Your task to perform on an android device: change the upload size in google photos Image 0: 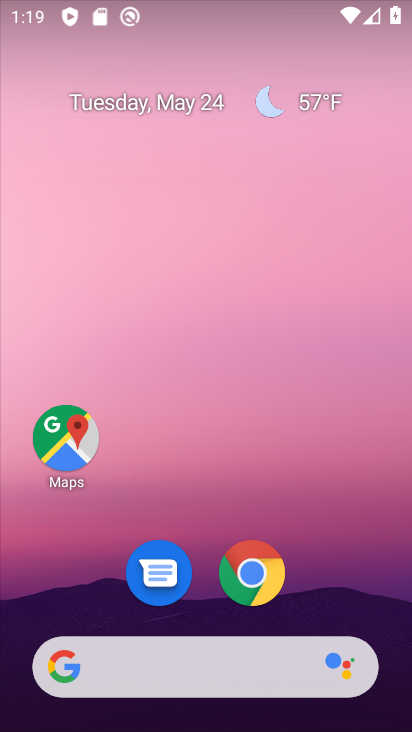
Step 0: drag from (376, 538) to (361, 140)
Your task to perform on an android device: change the upload size in google photos Image 1: 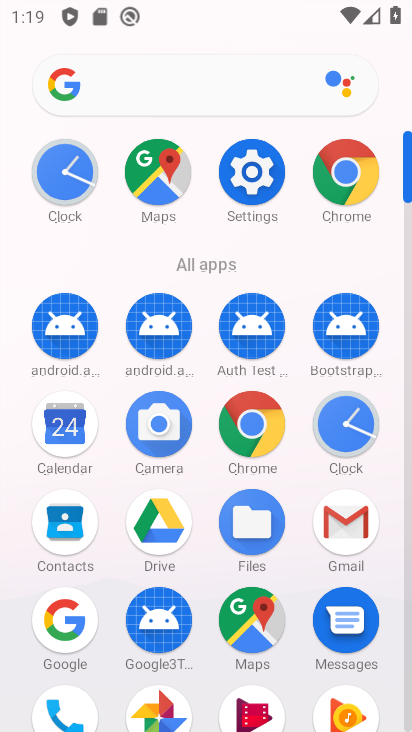
Step 1: click (154, 701)
Your task to perform on an android device: change the upload size in google photos Image 2: 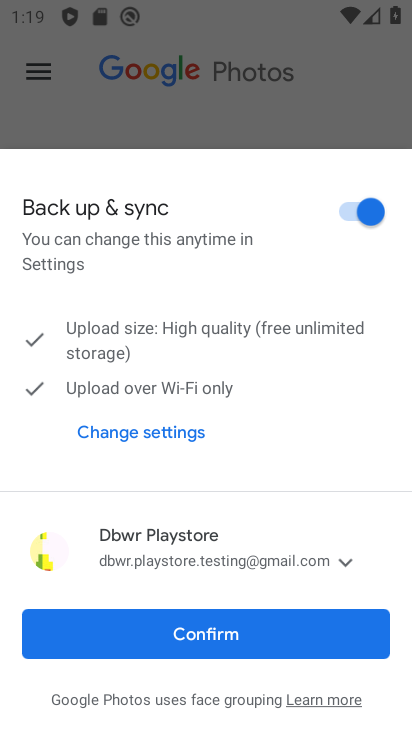
Step 2: click (201, 631)
Your task to perform on an android device: change the upload size in google photos Image 3: 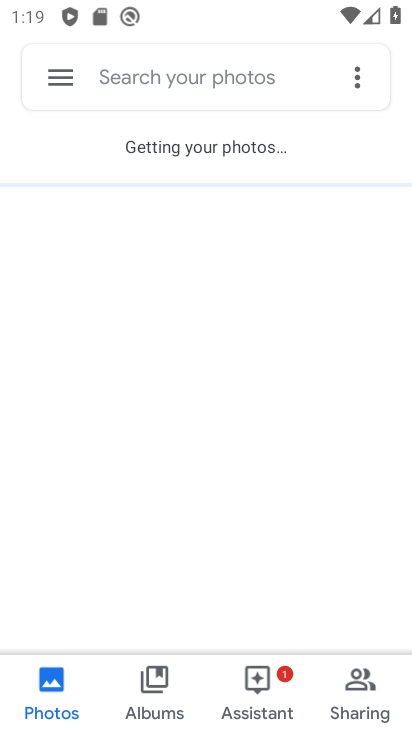
Step 3: click (63, 87)
Your task to perform on an android device: change the upload size in google photos Image 4: 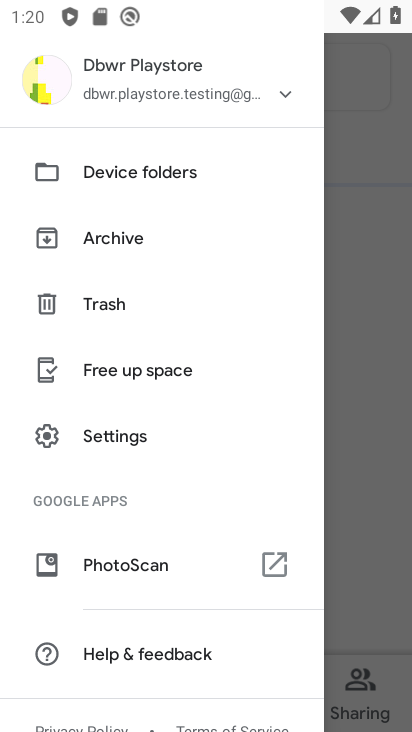
Step 4: click (124, 439)
Your task to perform on an android device: change the upload size in google photos Image 5: 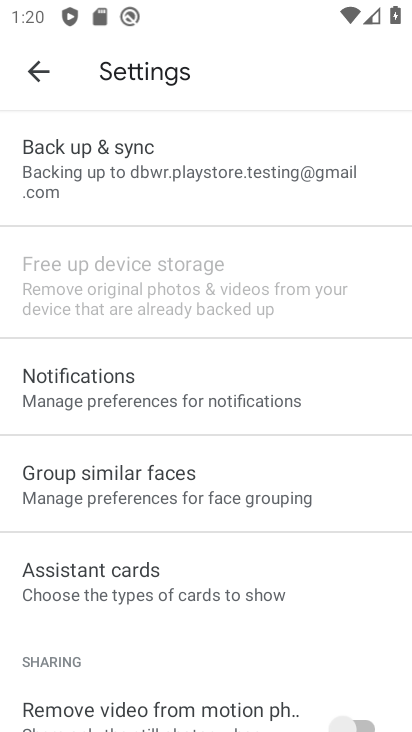
Step 5: click (212, 185)
Your task to perform on an android device: change the upload size in google photos Image 6: 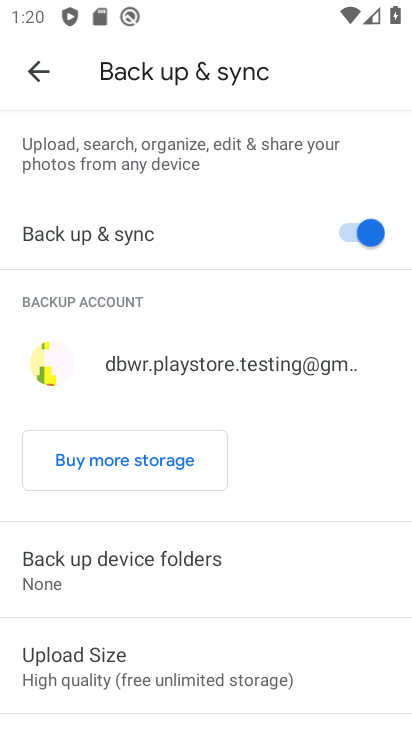
Step 6: click (188, 639)
Your task to perform on an android device: change the upload size in google photos Image 7: 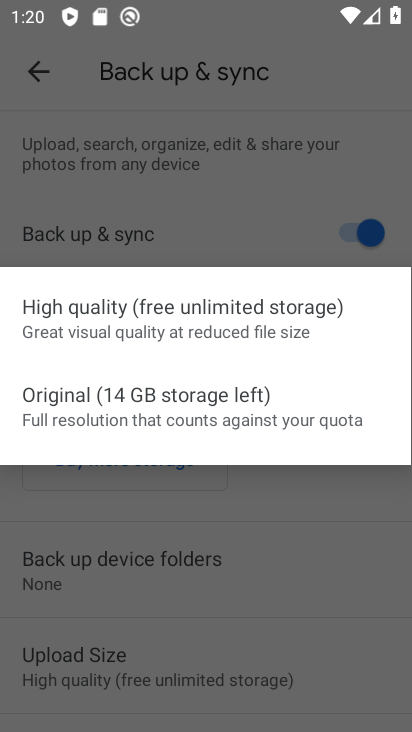
Step 7: click (225, 398)
Your task to perform on an android device: change the upload size in google photos Image 8: 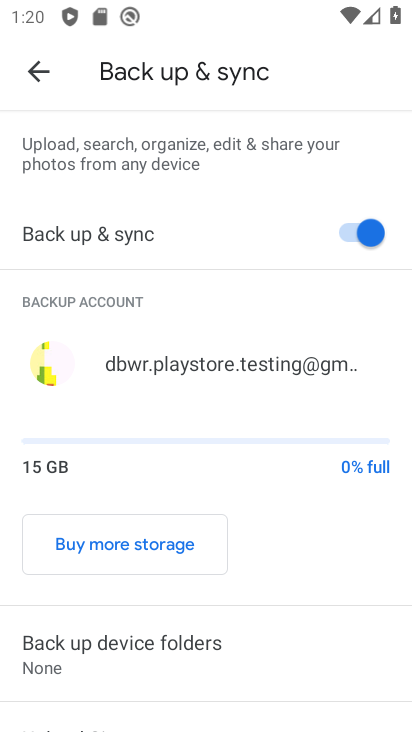
Step 8: task complete